Your task to perform on an android device: move a message to another label in the gmail app Image 0: 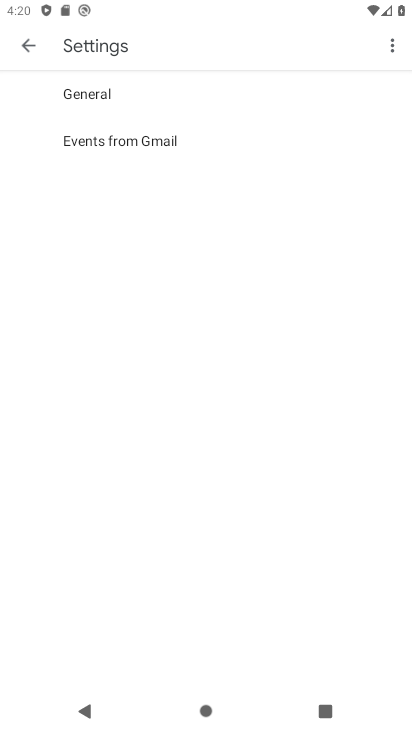
Step 0: click (51, 374)
Your task to perform on an android device: move a message to another label in the gmail app Image 1: 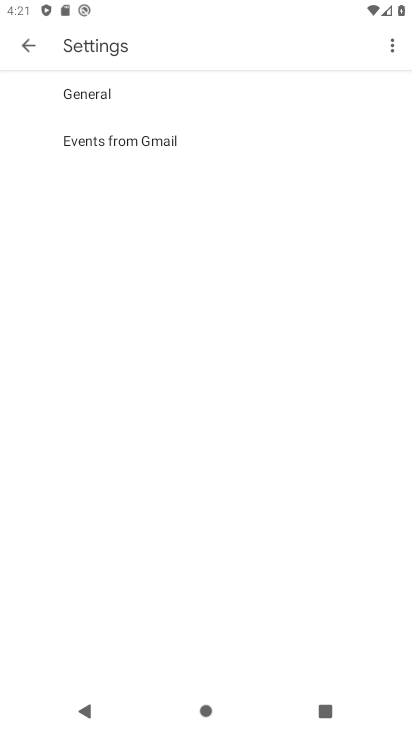
Step 1: click (33, 50)
Your task to perform on an android device: move a message to another label in the gmail app Image 2: 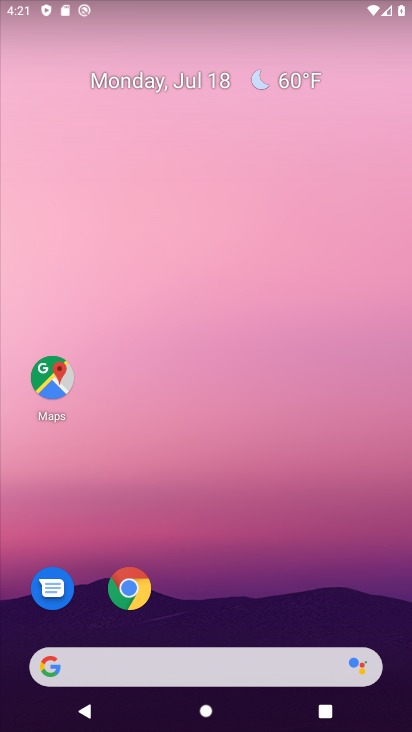
Step 2: drag from (208, 621) to (212, 3)
Your task to perform on an android device: move a message to another label in the gmail app Image 3: 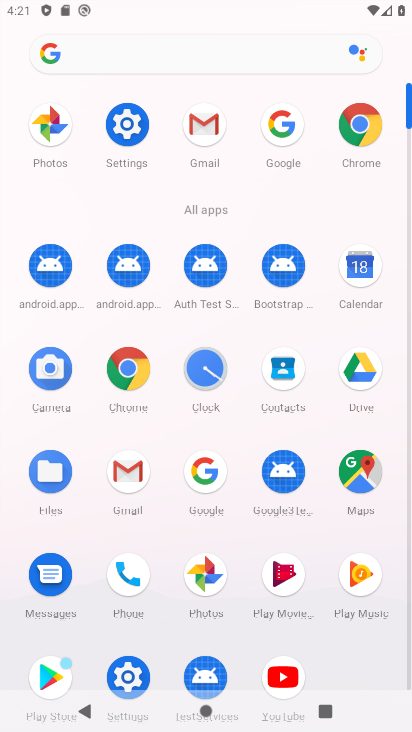
Step 3: click (122, 464)
Your task to perform on an android device: move a message to another label in the gmail app Image 4: 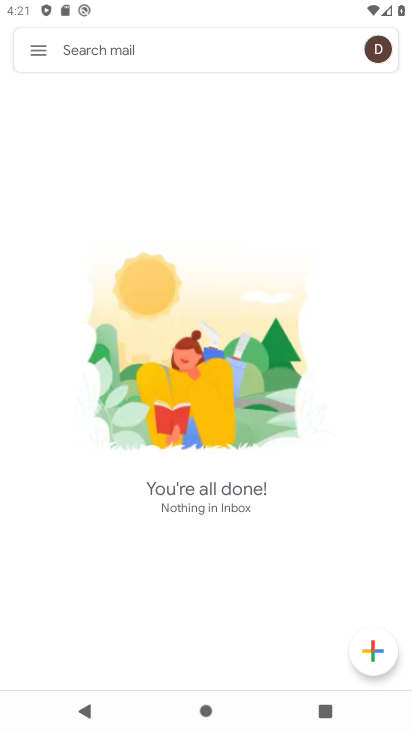
Step 4: task complete